Your task to perform on an android device: Go to privacy settings Image 0: 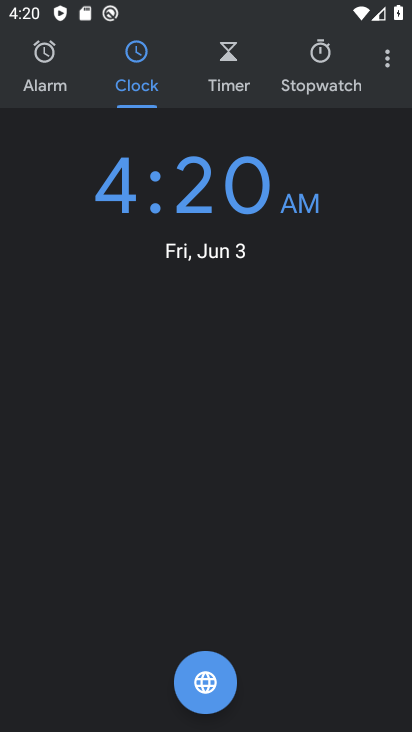
Step 0: press home button
Your task to perform on an android device: Go to privacy settings Image 1: 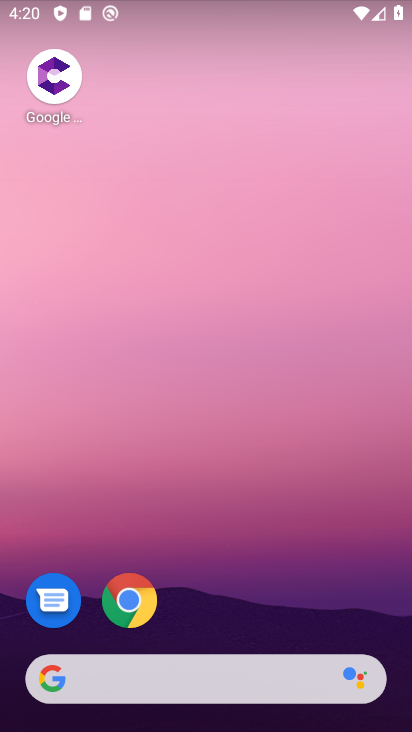
Step 1: drag from (218, 635) to (253, 20)
Your task to perform on an android device: Go to privacy settings Image 2: 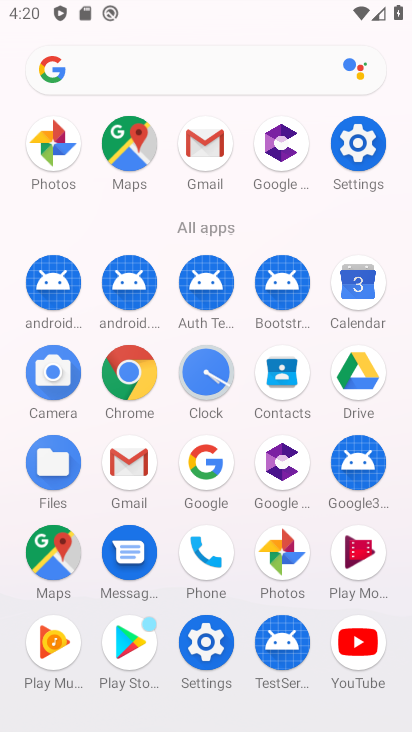
Step 2: click (368, 153)
Your task to perform on an android device: Go to privacy settings Image 3: 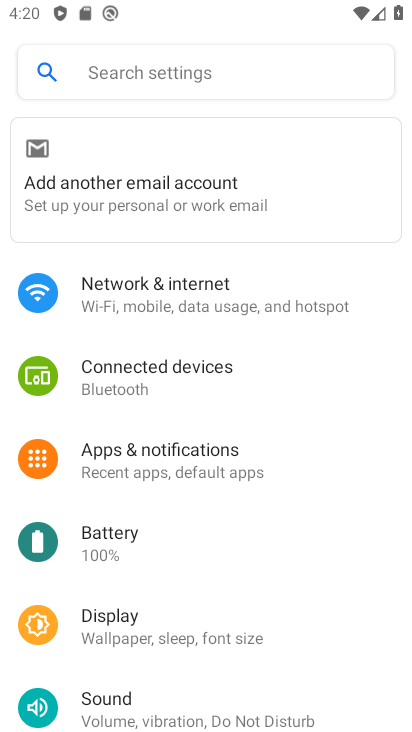
Step 3: drag from (179, 638) to (259, 309)
Your task to perform on an android device: Go to privacy settings Image 4: 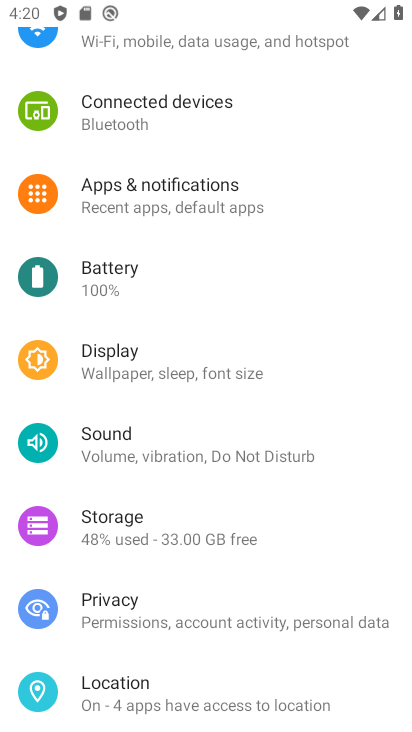
Step 4: click (172, 607)
Your task to perform on an android device: Go to privacy settings Image 5: 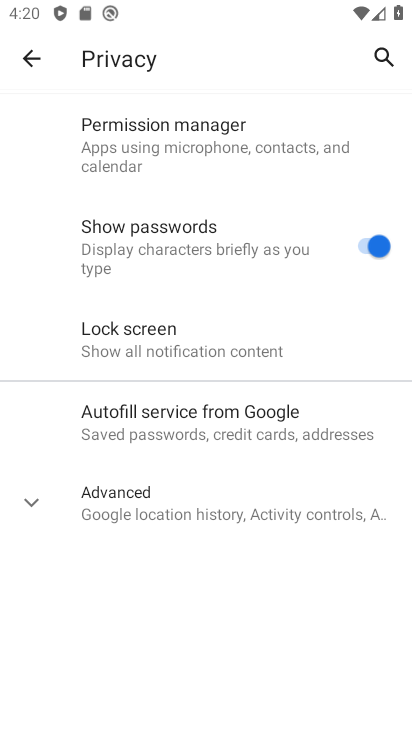
Step 5: task complete